Your task to perform on an android device: Open Youtube and go to "Your channel" Image 0: 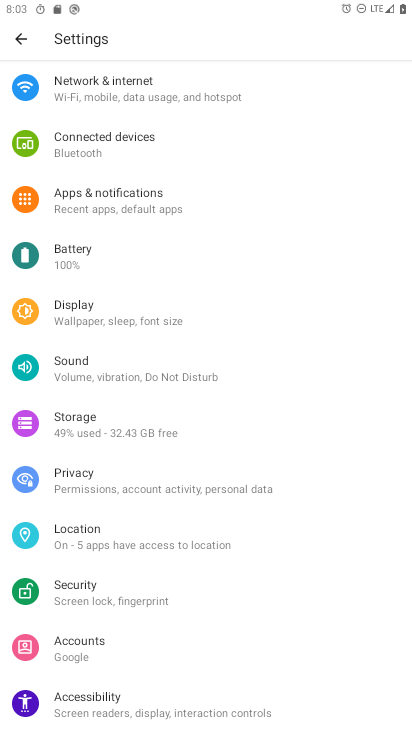
Step 0: press home button
Your task to perform on an android device: Open Youtube and go to "Your channel" Image 1: 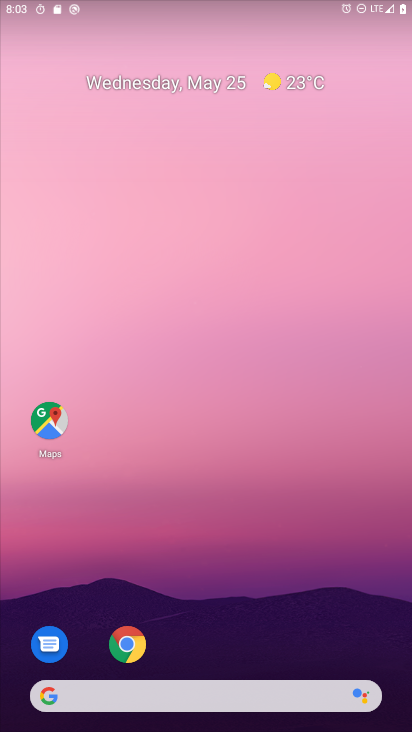
Step 1: drag from (363, 624) to (289, 91)
Your task to perform on an android device: Open Youtube and go to "Your channel" Image 2: 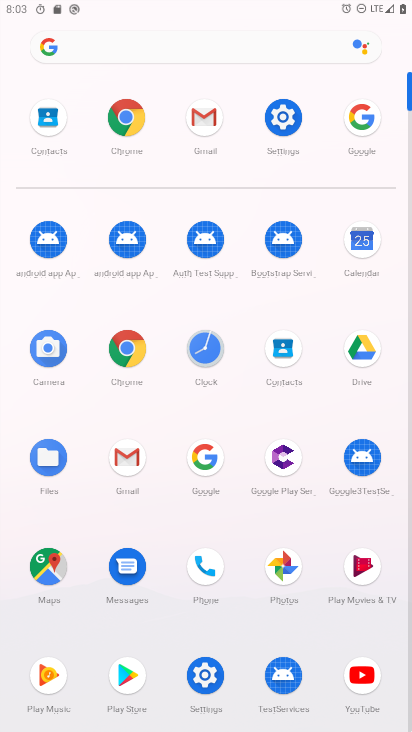
Step 2: click (364, 671)
Your task to perform on an android device: Open Youtube and go to "Your channel" Image 3: 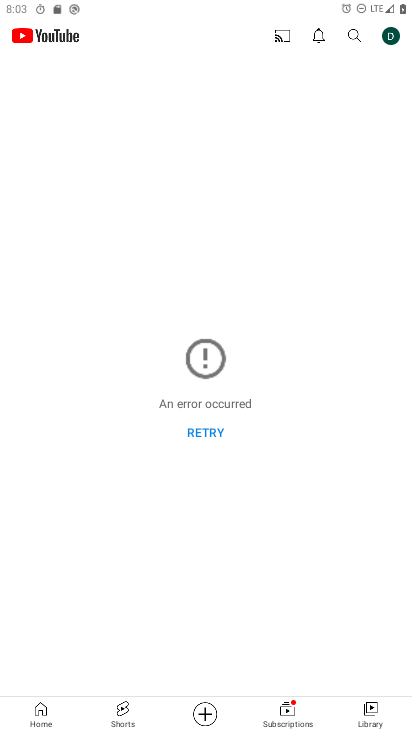
Step 3: click (186, 422)
Your task to perform on an android device: Open Youtube and go to "Your channel" Image 4: 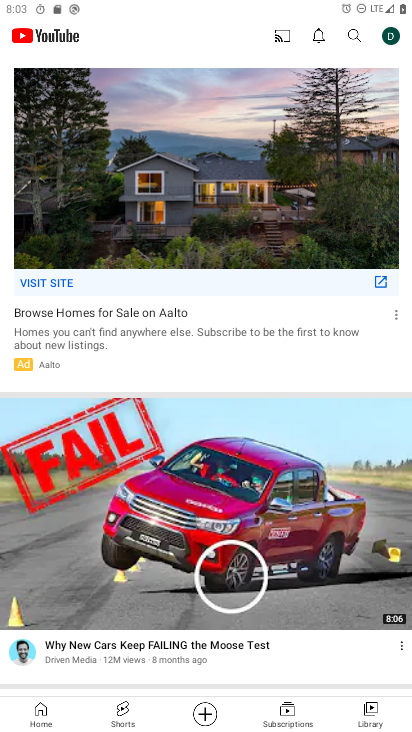
Step 4: click (392, 39)
Your task to perform on an android device: Open Youtube and go to "Your channel" Image 5: 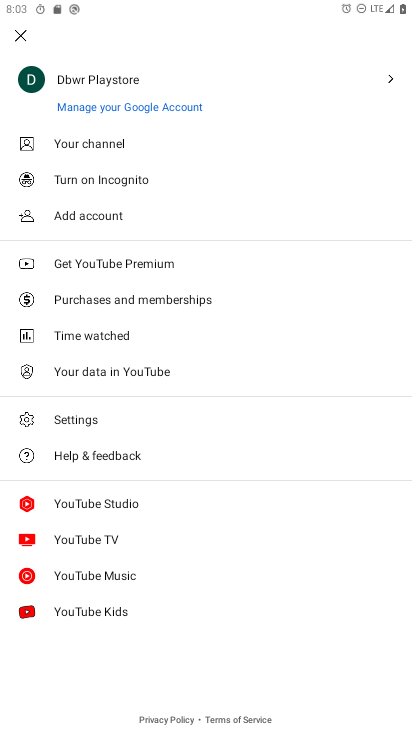
Step 5: click (130, 157)
Your task to perform on an android device: Open Youtube and go to "Your channel" Image 6: 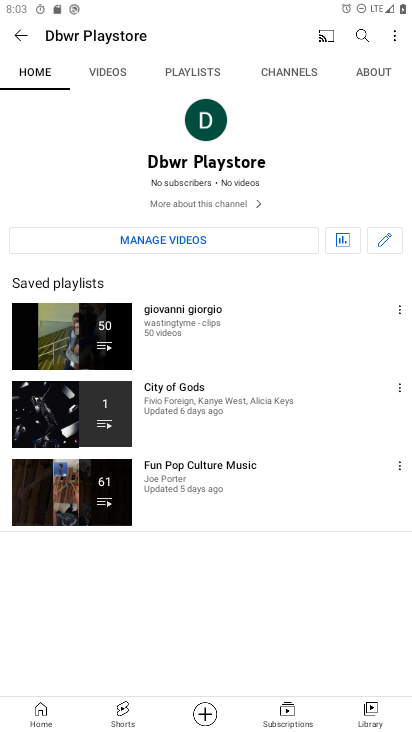
Step 6: task complete